Your task to perform on an android device: Show the shopping cart on newegg.com. Search for "beats solo 3" on newegg.com, select the first entry, and add it to the cart. Image 0: 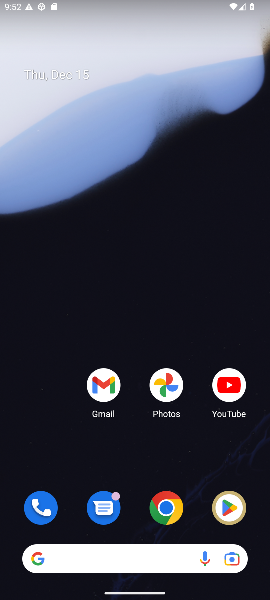
Step 0: drag from (120, 554) to (107, 112)
Your task to perform on an android device: Show the shopping cart on newegg.com. Search for "beats solo 3" on newegg.com, select the first entry, and add it to the cart. Image 1: 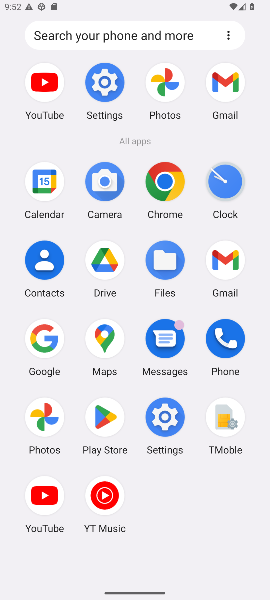
Step 1: click (38, 345)
Your task to perform on an android device: Show the shopping cart on newegg.com. Search for "beats solo 3" on newegg.com, select the first entry, and add it to the cart. Image 2: 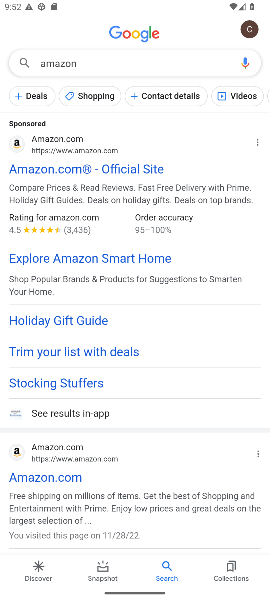
Step 2: click (65, 66)
Your task to perform on an android device: Show the shopping cart on newegg.com. Search for "beats solo 3" on newegg.com, select the first entry, and add it to the cart. Image 3: 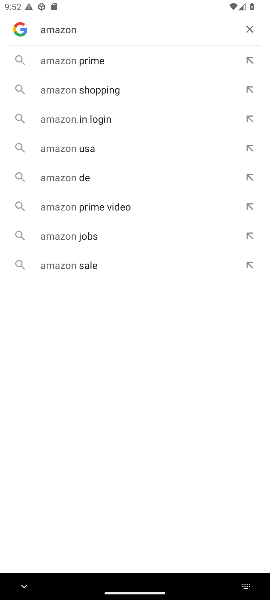
Step 3: click (246, 25)
Your task to perform on an android device: Show the shopping cart on newegg.com. Search for "beats solo 3" on newegg.com, select the first entry, and add it to the cart. Image 4: 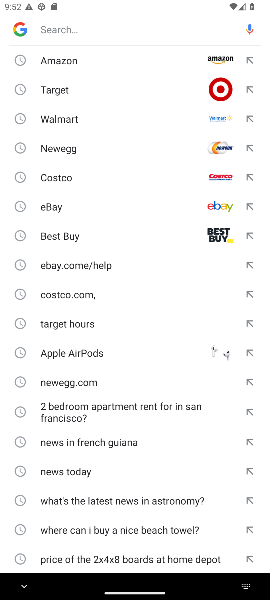
Step 4: click (70, 151)
Your task to perform on an android device: Show the shopping cart on newegg.com. Search for "beats solo 3" on newegg.com, select the first entry, and add it to the cart. Image 5: 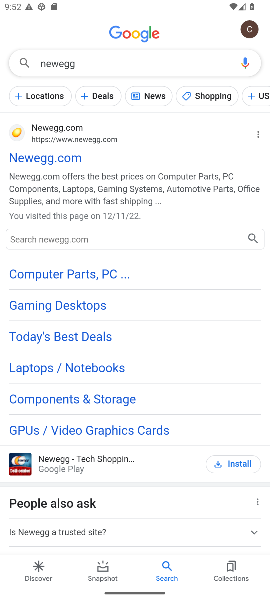
Step 5: click (36, 155)
Your task to perform on an android device: Show the shopping cart on newegg.com. Search for "beats solo 3" on newegg.com, select the first entry, and add it to the cart. Image 6: 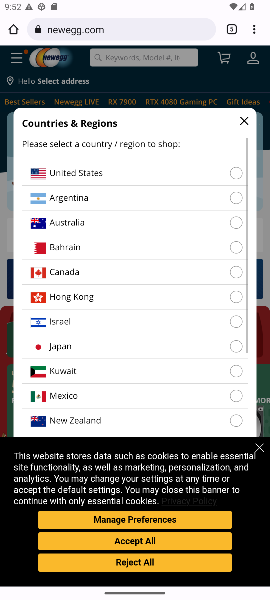
Step 6: click (243, 117)
Your task to perform on an android device: Show the shopping cart on newegg.com. Search for "beats solo 3" on newegg.com, select the first entry, and add it to the cart. Image 7: 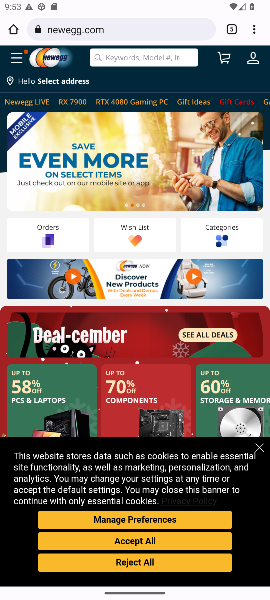
Step 7: click (221, 59)
Your task to perform on an android device: Show the shopping cart on newegg.com. Search for "beats solo 3" on newegg.com, select the first entry, and add it to the cart. Image 8: 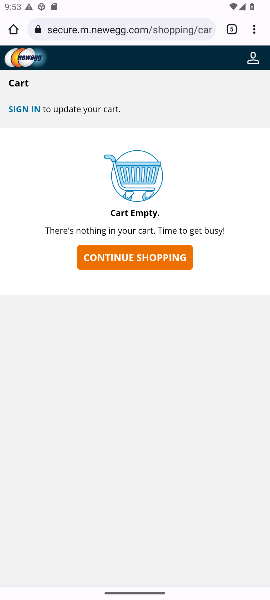
Step 8: click (251, 57)
Your task to perform on an android device: Show the shopping cart on newegg.com. Search for "beats solo 3" on newegg.com, select the first entry, and add it to the cart. Image 9: 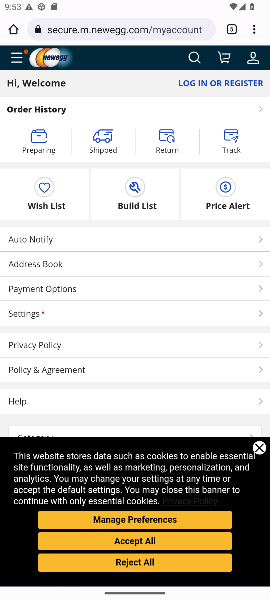
Step 9: click (190, 57)
Your task to perform on an android device: Show the shopping cart on newegg.com. Search for "beats solo 3" on newegg.com, select the first entry, and add it to the cart. Image 10: 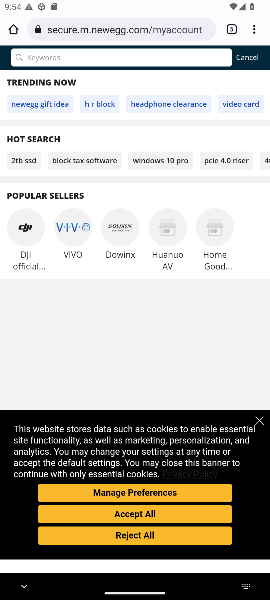
Step 10: type "beats solo 3"
Your task to perform on an android device: Show the shopping cart on newegg.com. Search for "beats solo 3" on newegg.com, select the first entry, and add it to the cart. Image 11: 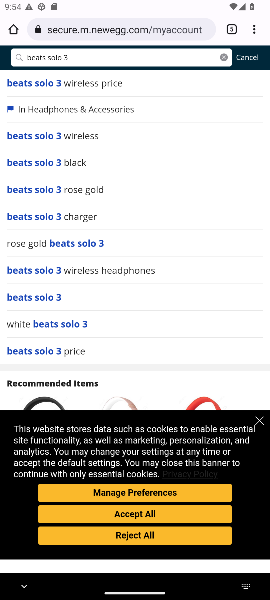
Step 11: click (23, 295)
Your task to perform on an android device: Show the shopping cart on newegg.com. Search for "beats solo 3" on newegg.com, select the first entry, and add it to the cart. Image 12: 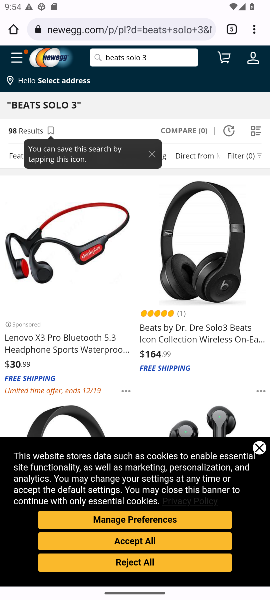
Step 12: click (39, 337)
Your task to perform on an android device: Show the shopping cart on newegg.com. Search for "beats solo 3" on newegg.com, select the first entry, and add it to the cart. Image 13: 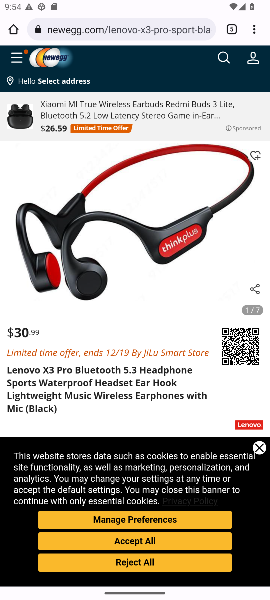
Step 13: click (256, 448)
Your task to perform on an android device: Show the shopping cart on newegg.com. Search for "beats solo 3" on newegg.com, select the first entry, and add it to the cart. Image 14: 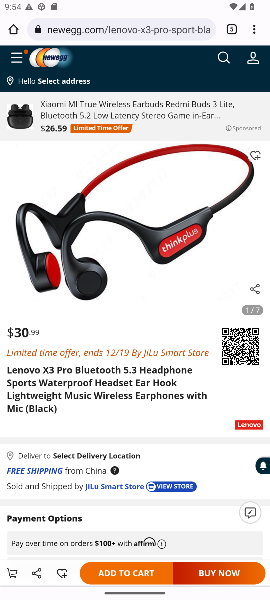
Step 14: click (114, 577)
Your task to perform on an android device: Show the shopping cart on newegg.com. Search for "beats solo 3" on newegg.com, select the first entry, and add it to the cart. Image 15: 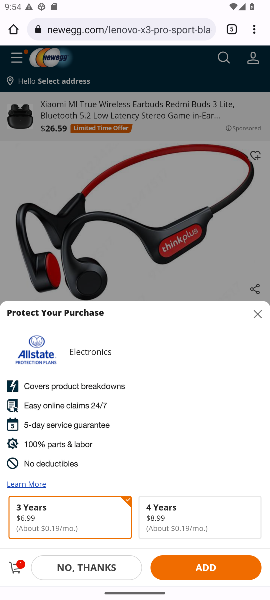
Step 15: click (14, 565)
Your task to perform on an android device: Show the shopping cart on newegg.com. Search for "beats solo 3" on newegg.com, select the first entry, and add it to the cart. Image 16: 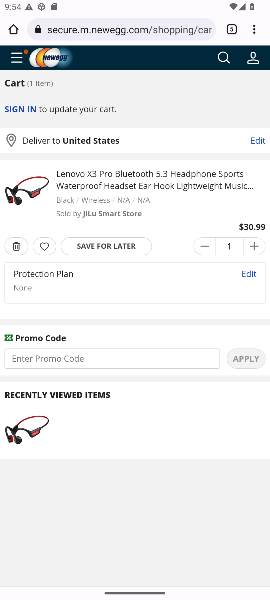
Step 16: task complete